Your task to perform on an android device: Go to eBay Image 0: 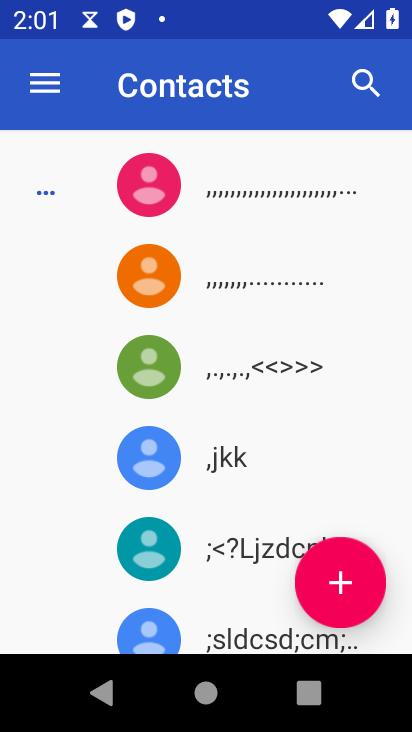
Step 0: press back button
Your task to perform on an android device: Go to eBay Image 1: 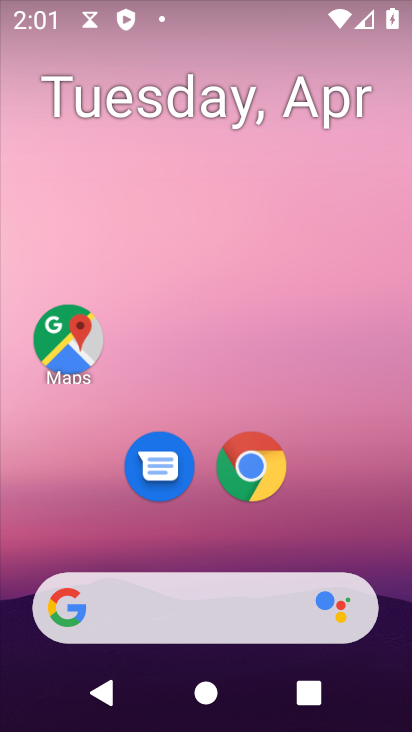
Step 1: drag from (338, 493) to (245, 19)
Your task to perform on an android device: Go to eBay Image 2: 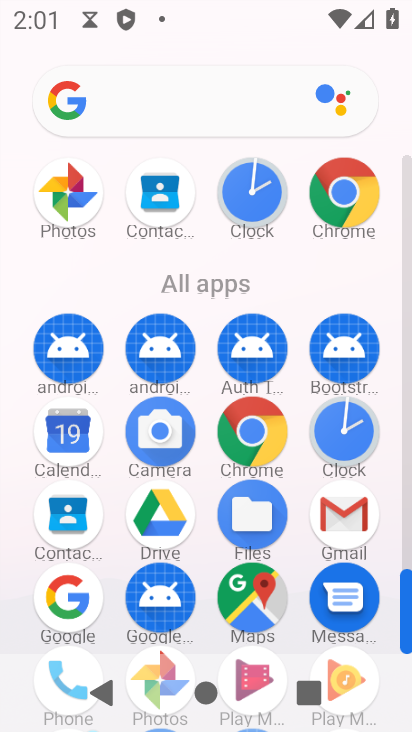
Step 2: click (342, 186)
Your task to perform on an android device: Go to eBay Image 3: 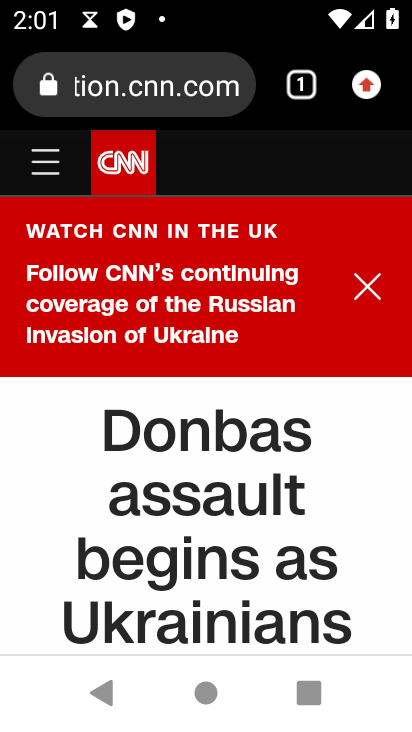
Step 3: click (191, 88)
Your task to perform on an android device: Go to eBay Image 4: 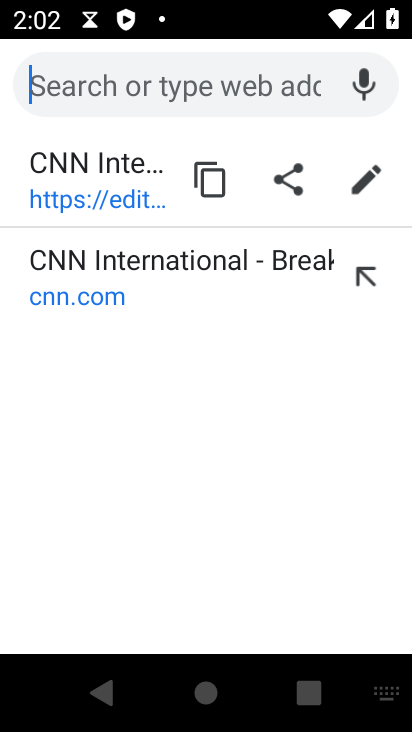
Step 4: type "eBay"
Your task to perform on an android device: Go to eBay Image 5: 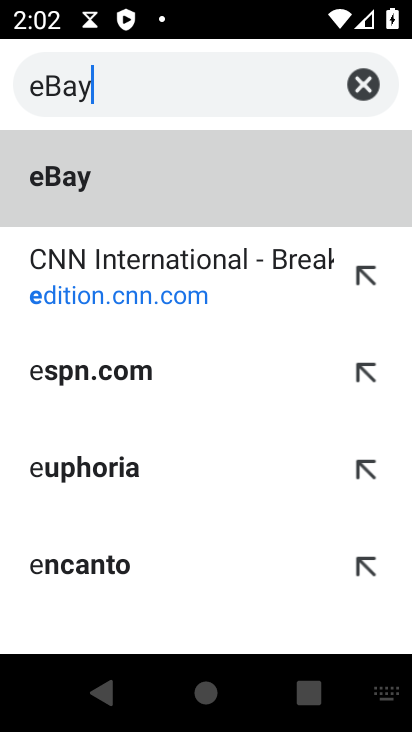
Step 5: type ""
Your task to perform on an android device: Go to eBay Image 6: 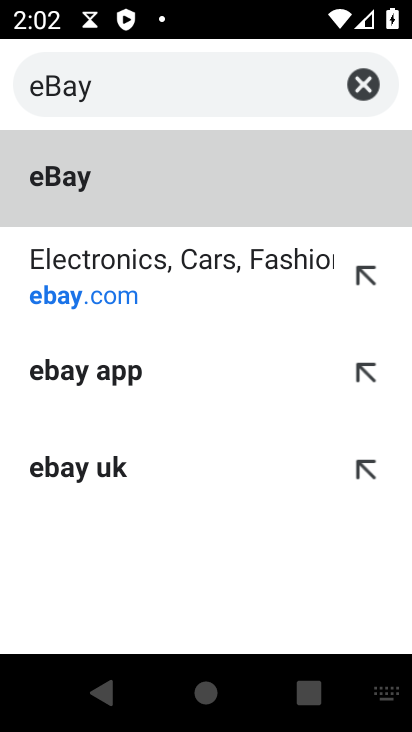
Step 6: click (101, 264)
Your task to perform on an android device: Go to eBay Image 7: 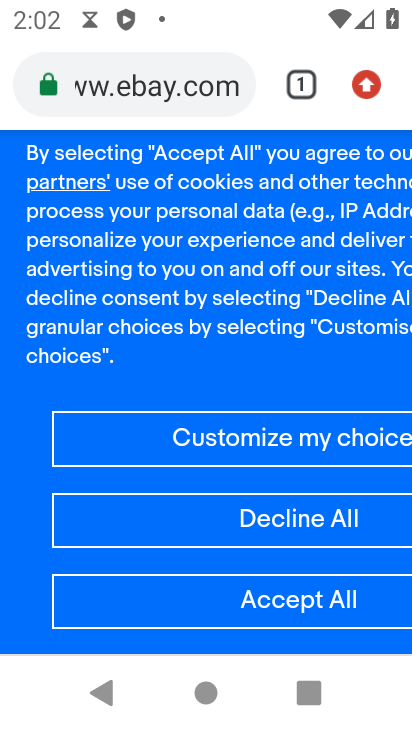
Step 7: task complete